Your task to perform on an android device: toggle notification dots Image 0: 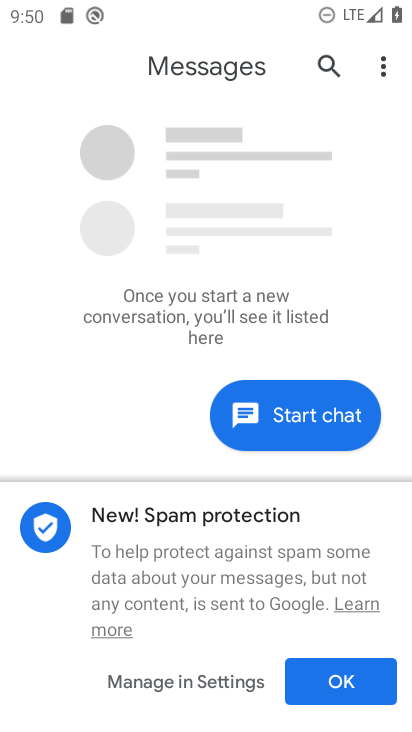
Step 0: press home button
Your task to perform on an android device: toggle notification dots Image 1: 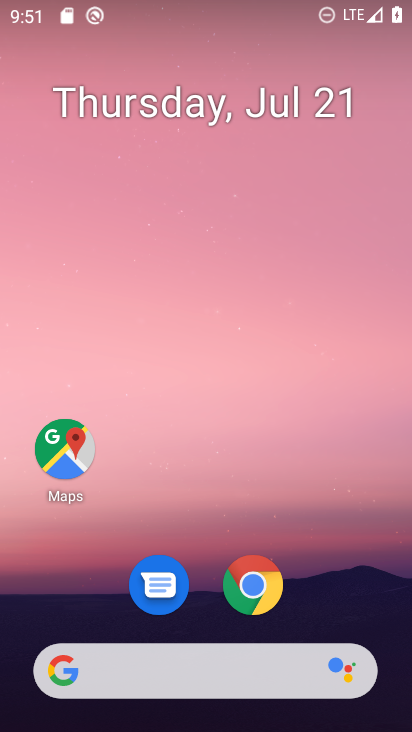
Step 1: drag from (310, 595) to (358, 84)
Your task to perform on an android device: toggle notification dots Image 2: 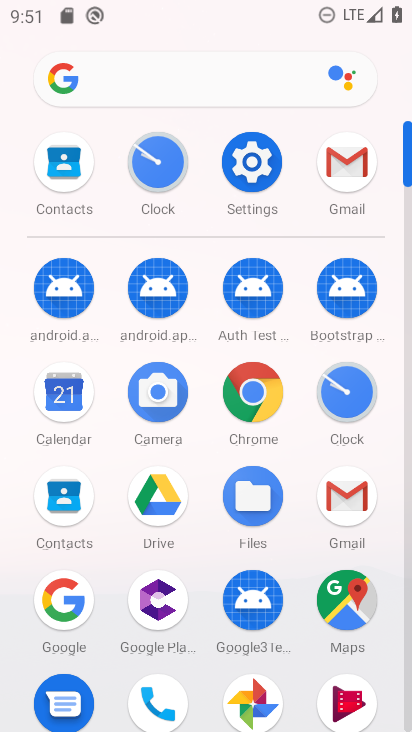
Step 2: click (256, 165)
Your task to perform on an android device: toggle notification dots Image 3: 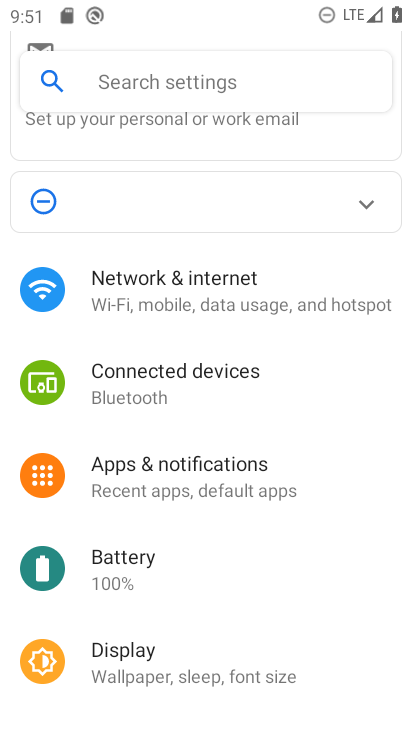
Step 3: click (202, 484)
Your task to perform on an android device: toggle notification dots Image 4: 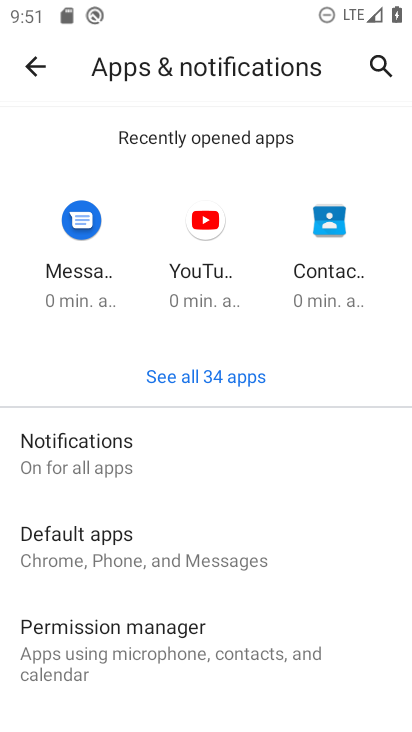
Step 4: click (112, 459)
Your task to perform on an android device: toggle notification dots Image 5: 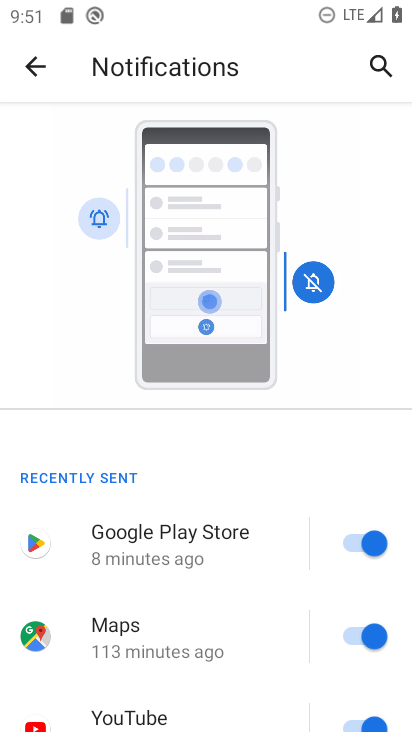
Step 5: drag from (214, 635) to (322, 165)
Your task to perform on an android device: toggle notification dots Image 6: 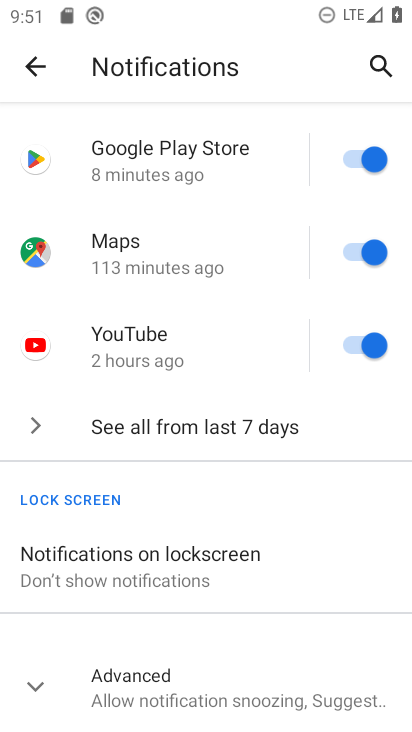
Step 6: click (33, 688)
Your task to perform on an android device: toggle notification dots Image 7: 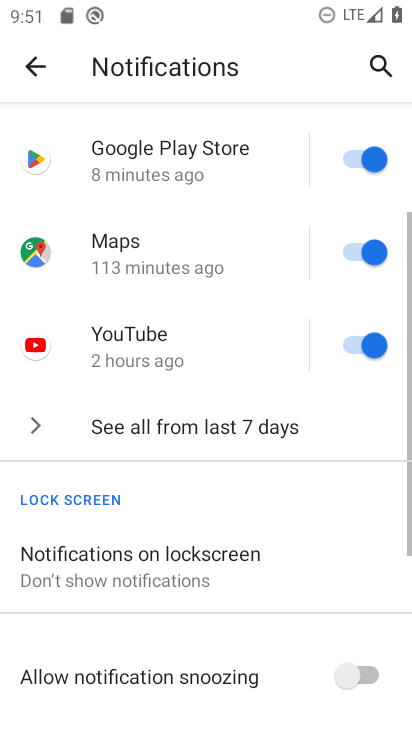
Step 7: drag from (239, 503) to (281, 185)
Your task to perform on an android device: toggle notification dots Image 8: 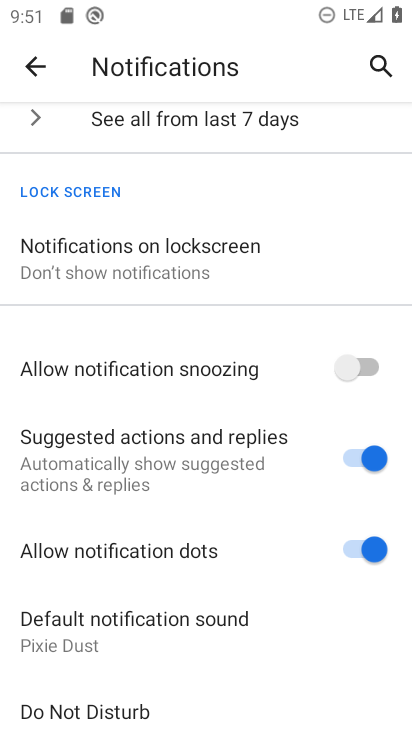
Step 8: click (359, 545)
Your task to perform on an android device: toggle notification dots Image 9: 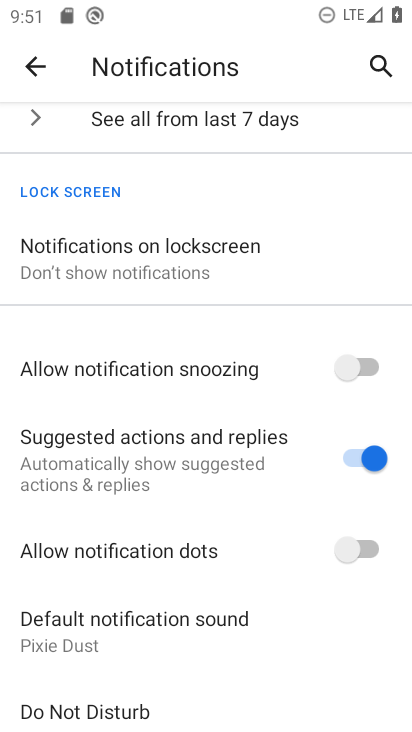
Step 9: task complete